Your task to perform on an android device: check android version Image 0: 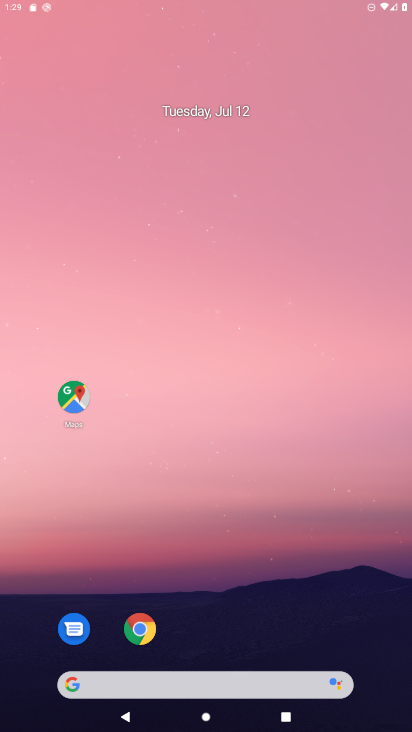
Step 0: press home button
Your task to perform on an android device: check android version Image 1: 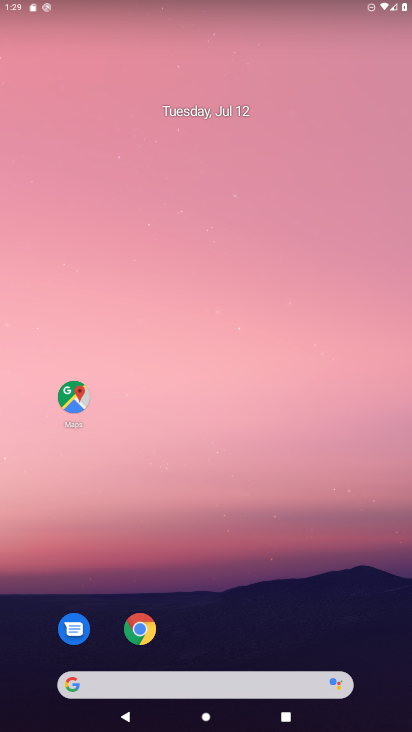
Step 1: drag from (210, 651) to (215, 1)
Your task to perform on an android device: check android version Image 2: 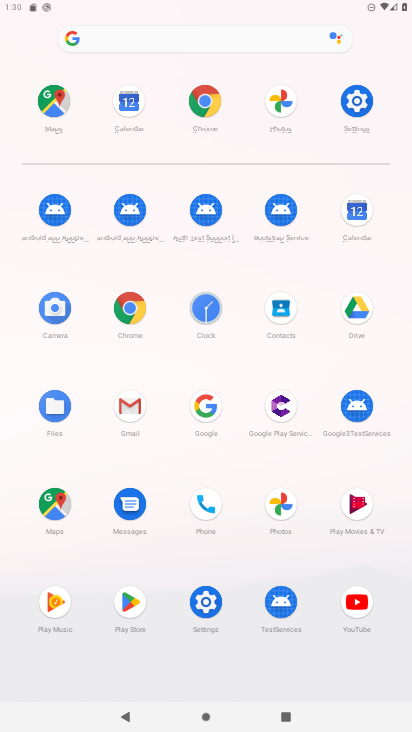
Step 2: click (357, 94)
Your task to perform on an android device: check android version Image 3: 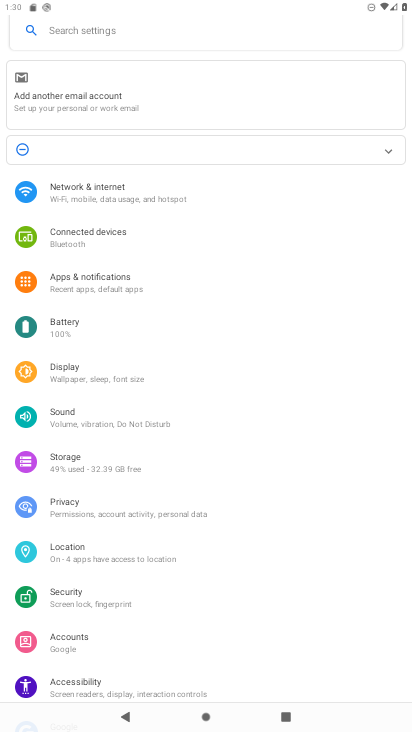
Step 3: drag from (178, 661) to (192, 67)
Your task to perform on an android device: check android version Image 4: 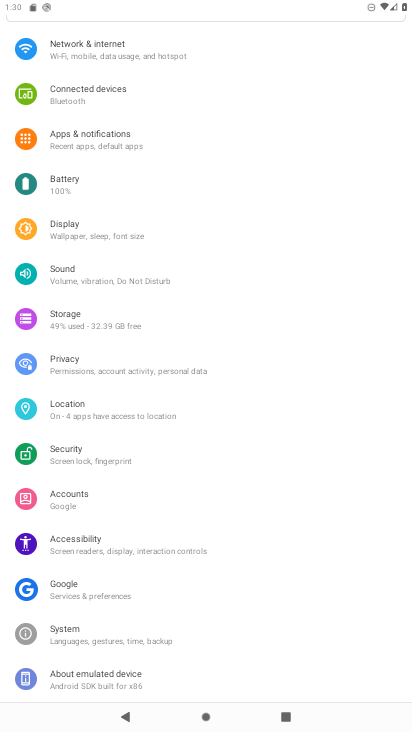
Step 4: click (131, 682)
Your task to perform on an android device: check android version Image 5: 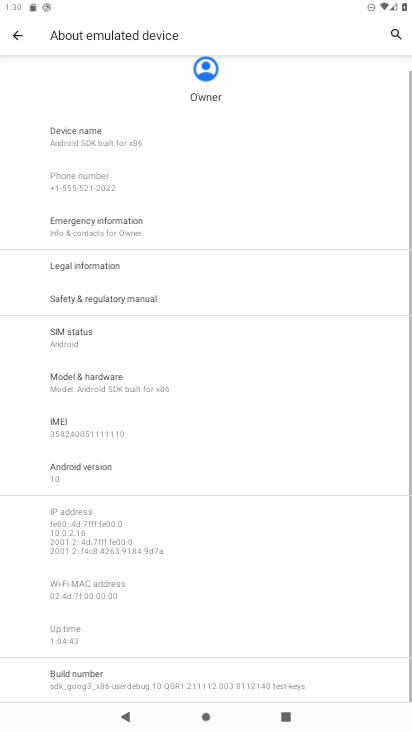
Step 5: click (116, 468)
Your task to perform on an android device: check android version Image 6: 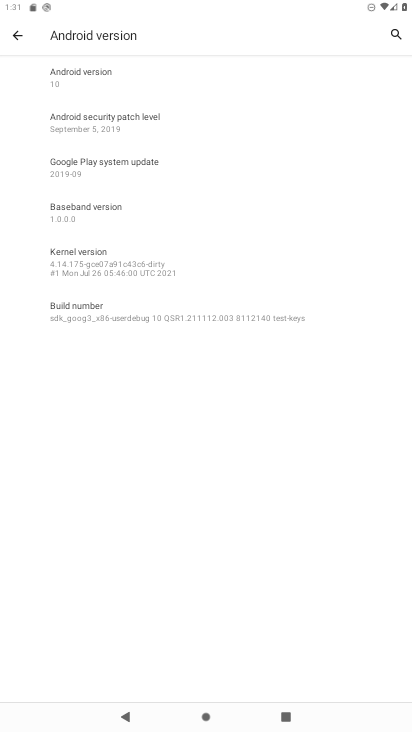
Step 6: task complete